Your task to perform on an android device: What's the weather going to be this weekend? Image 0: 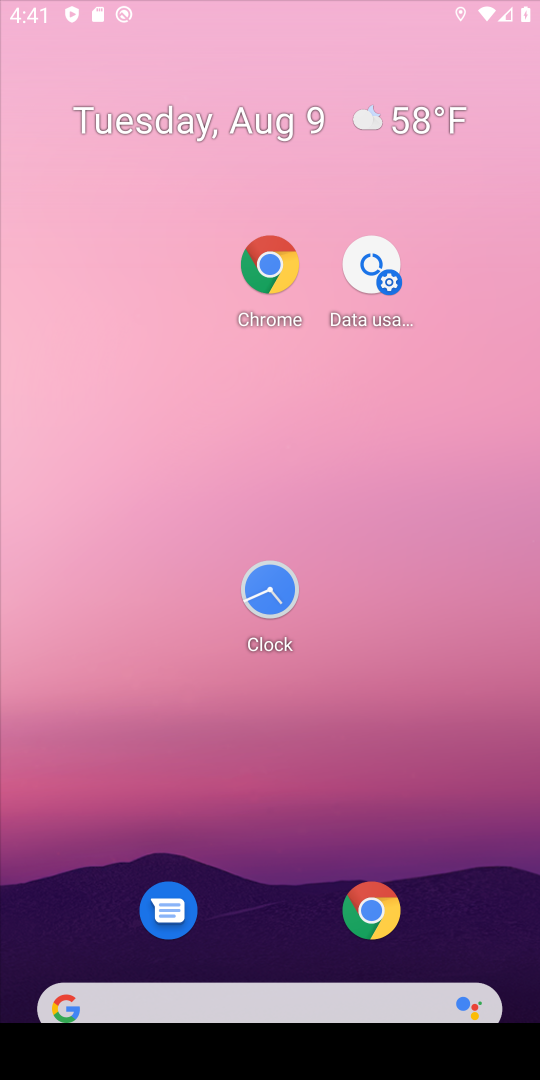
Step 0: drag from (211, 188) to (248, 93)
Your task to perform on an android device: What's the weather going to be this weekend? Image 1: 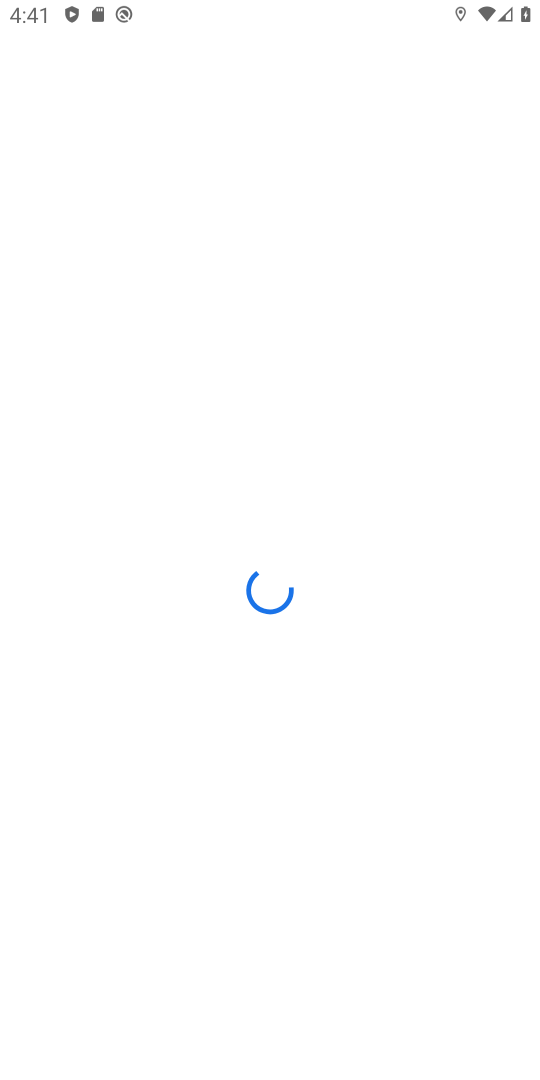
Step 1: press back button
Your task to perform on an android device: What's the weather going to be this weekend? Image 2: 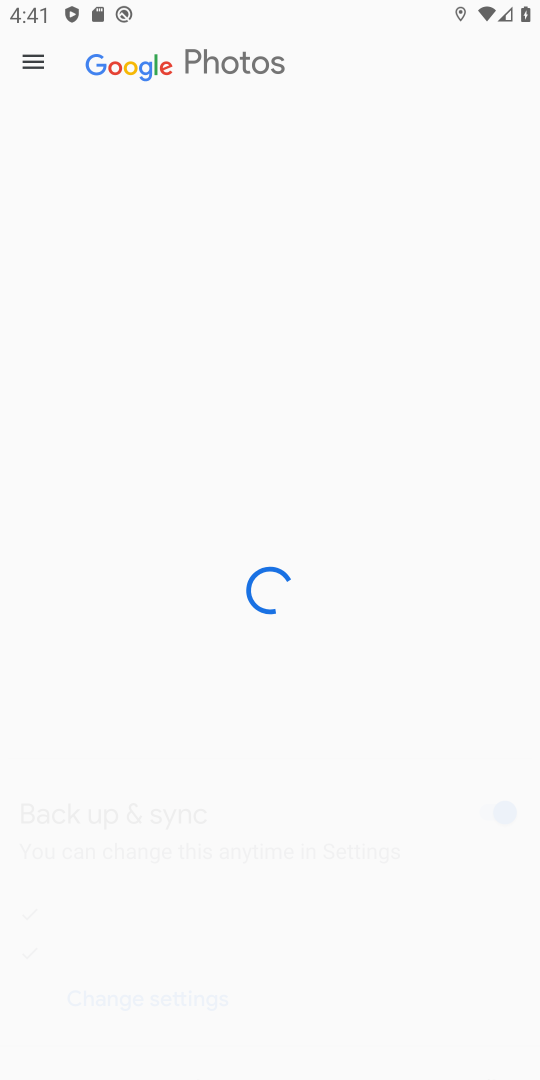
Step 2: press back button
Your task to perform on an android device: What's the weather going to be this weekend? Image 3: 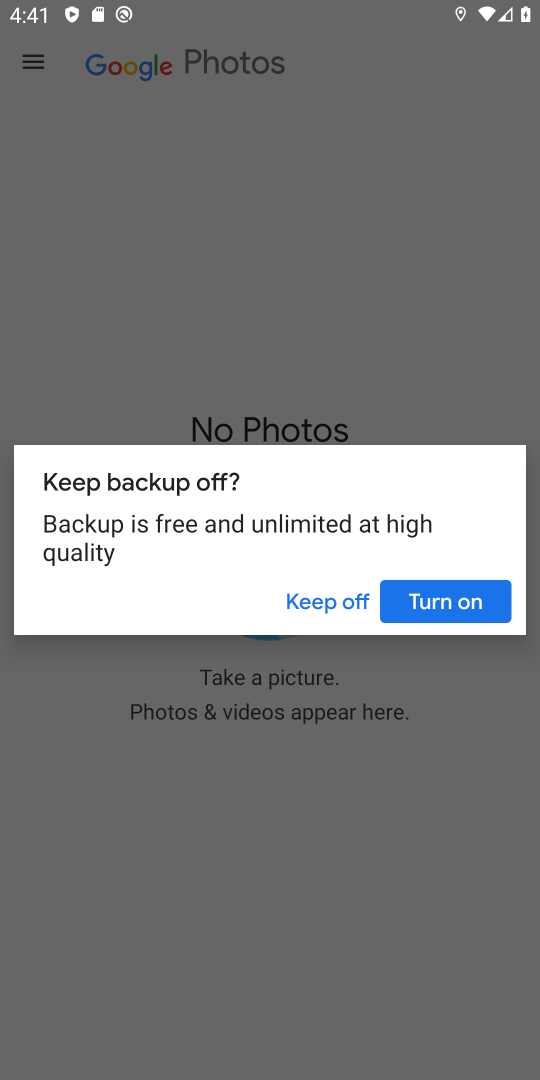
Step 3: press home button
Your task to perform on an android device: What's the weather going to be this weekend? Image 4: 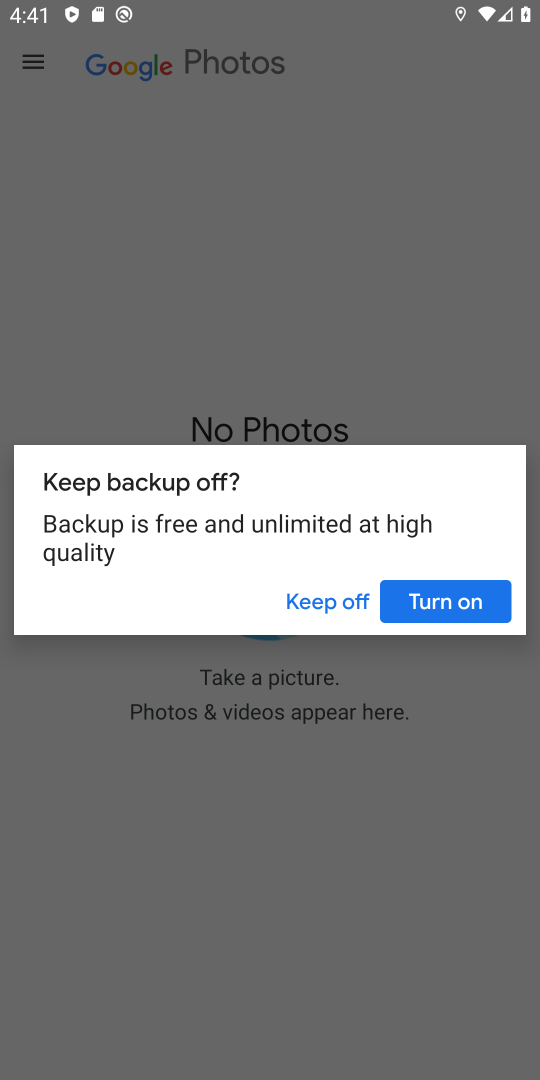
Step 4: click (282, 603)
Your task to perform on an android device: What's the weather going to be this weekend? Image 5: 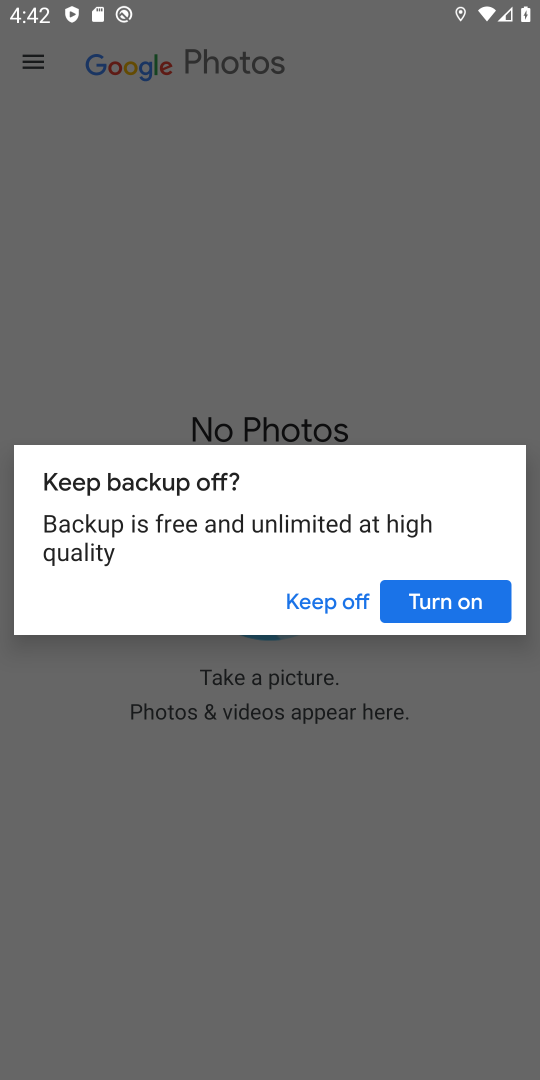
Step 5: click (296, 603)
Your task to perform on an android device: What's the weather going to be this weekend? Image 6: 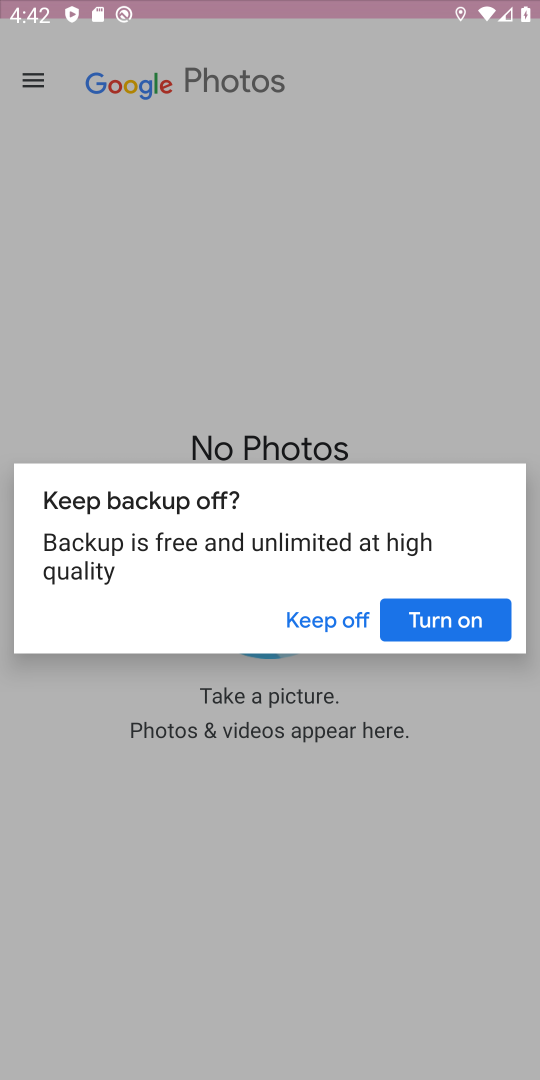
Step 6: click (302, 603)
Your task to perform on an android device: What's the weather going to be this weekend? Image 7: 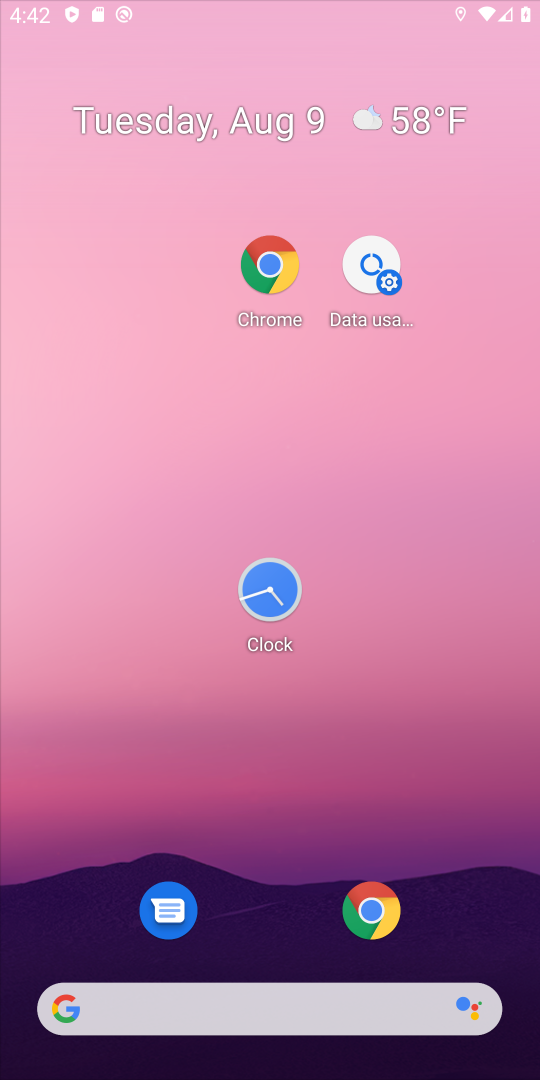
Step 7: drag from (299, 702) to (254, 259)
Your task to perform on an android device: What's the weather going to be this weekend? Image 8: 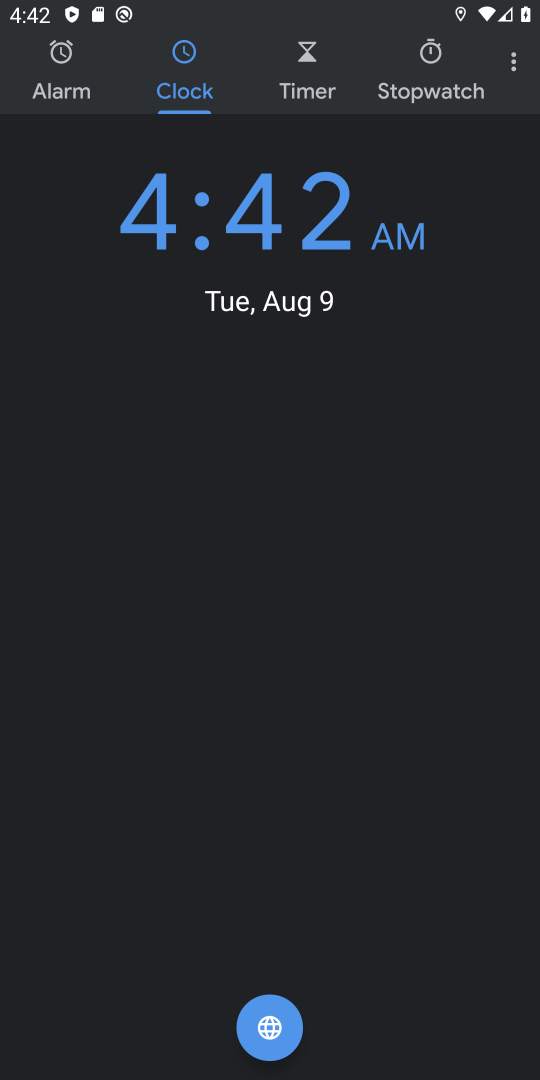
Step 8: press back button
Your task to perform on an android device: What's the weather going to be this weekend? Image 9: 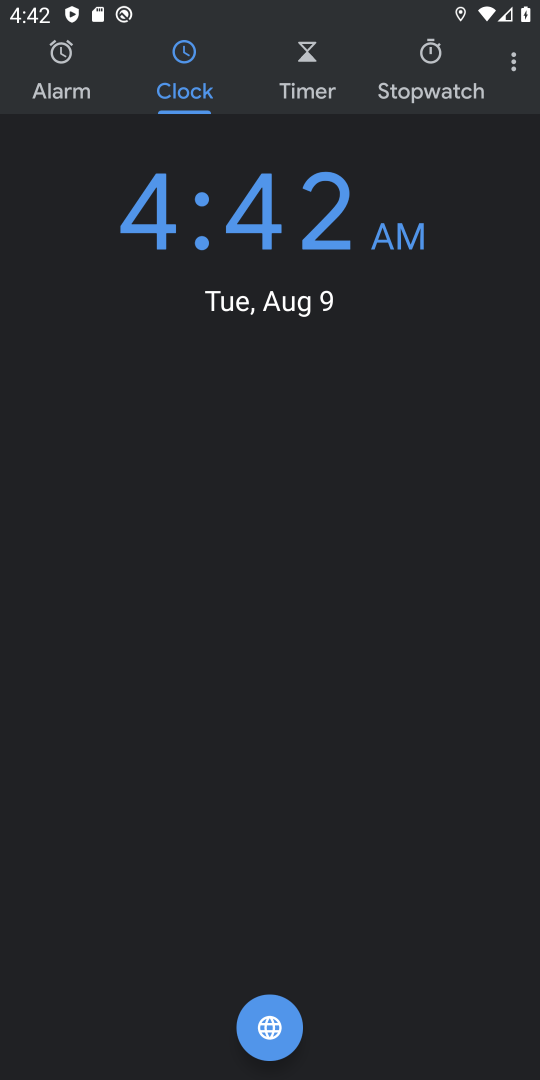
Step 9: press back button
Your task to perform on an android device: What's the weather going to be this weekend? Image 10: 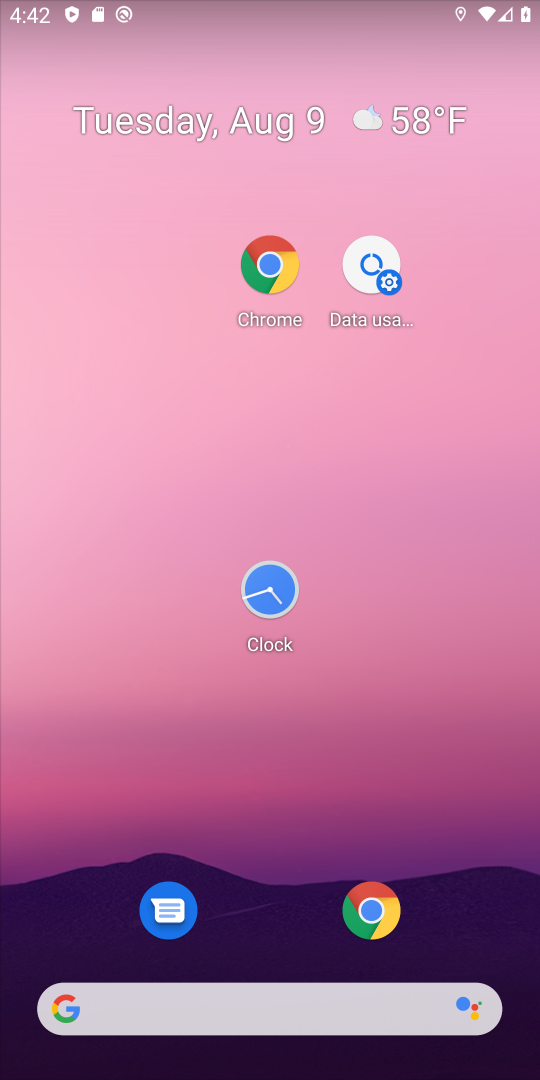
Step 10: drag from (272, 284) to (270, 104)
Your task to perform on an android device: What's the weather going to be this weekend? Image 11: 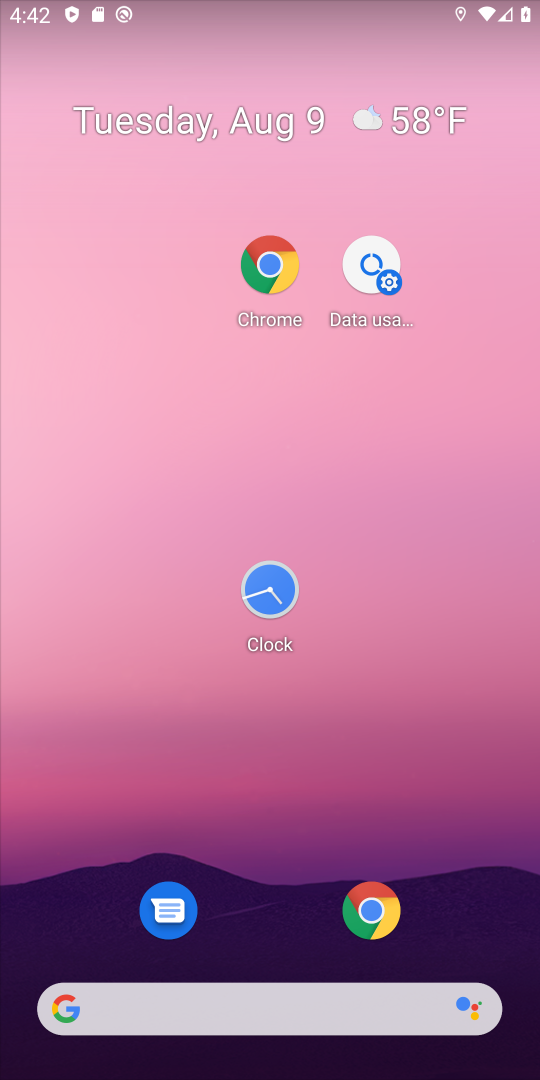
Step 11: click (279, 251)
Your task to perform on an android device: What's the weather going to be this weekend? Image 12: 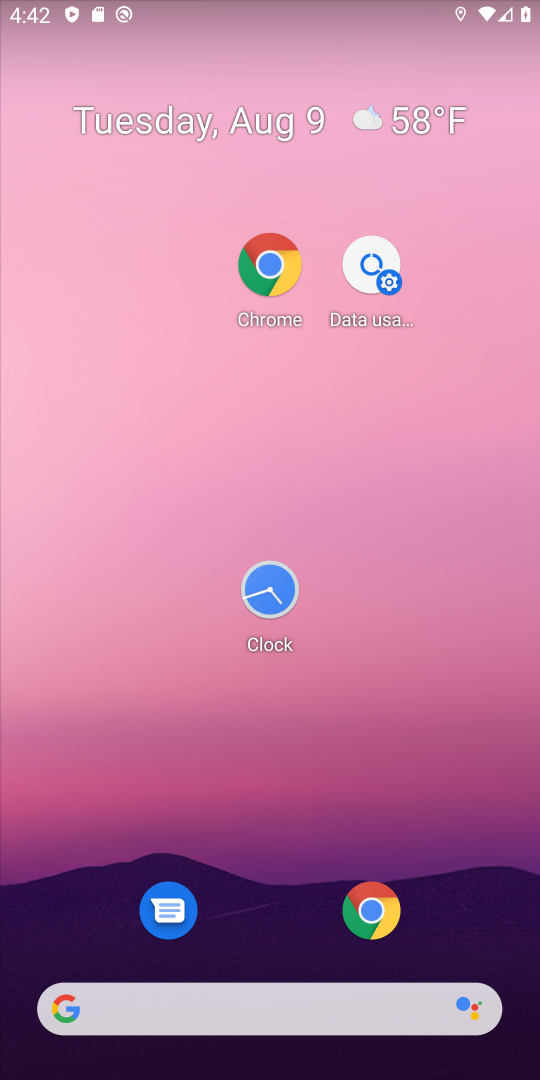
Step 12: click (278, 252)
Your task to perform on an android device: What's the weather going to be this weekend? Image 13: 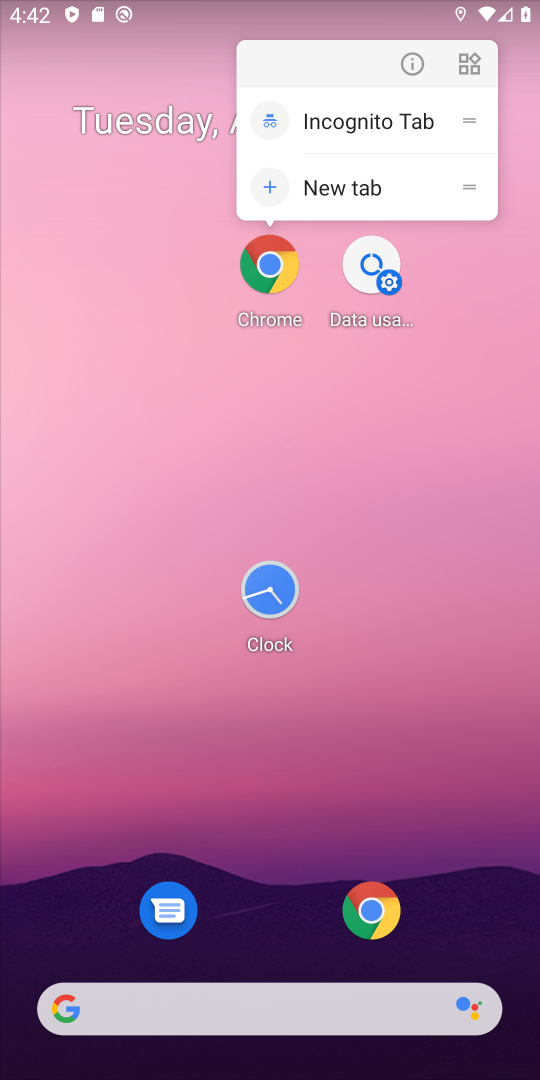
Step 13: click (279, 255)
Your task to perform on an android device: What's the weather going to be this weekend? Image 14: 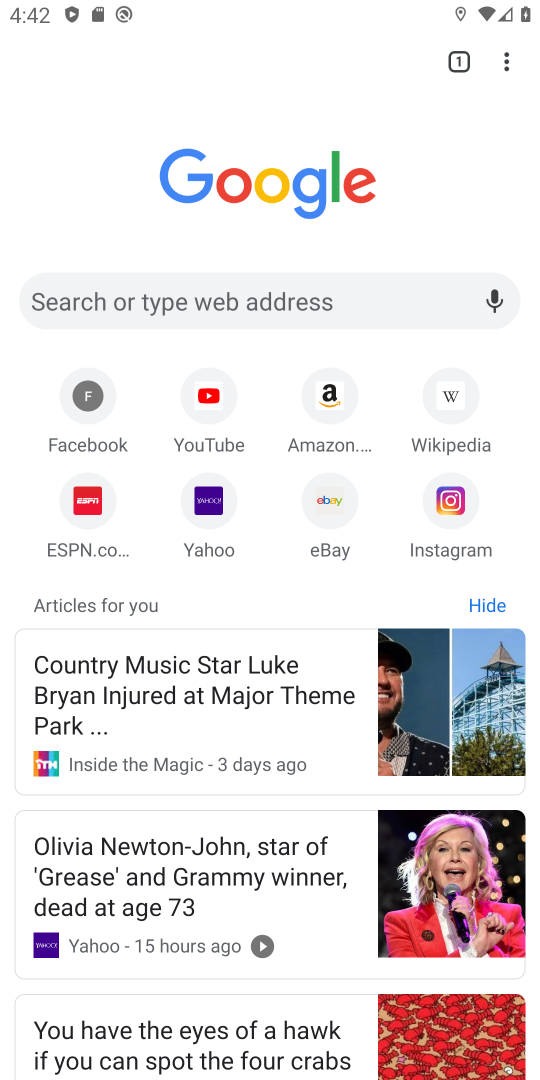
Step 14: click (106, 306)
Your task to perform on an android device: What's the weather going to be this weekend? Image 15: 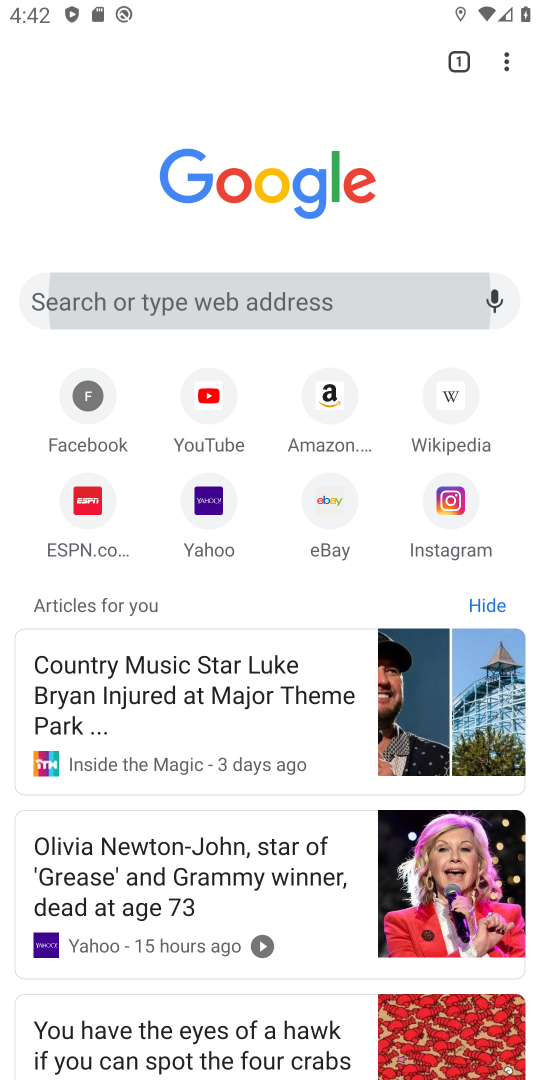
Step 15: click (108, 290)
Your task to perform on an android device: What's the weather going to be this weekend? Image 16: 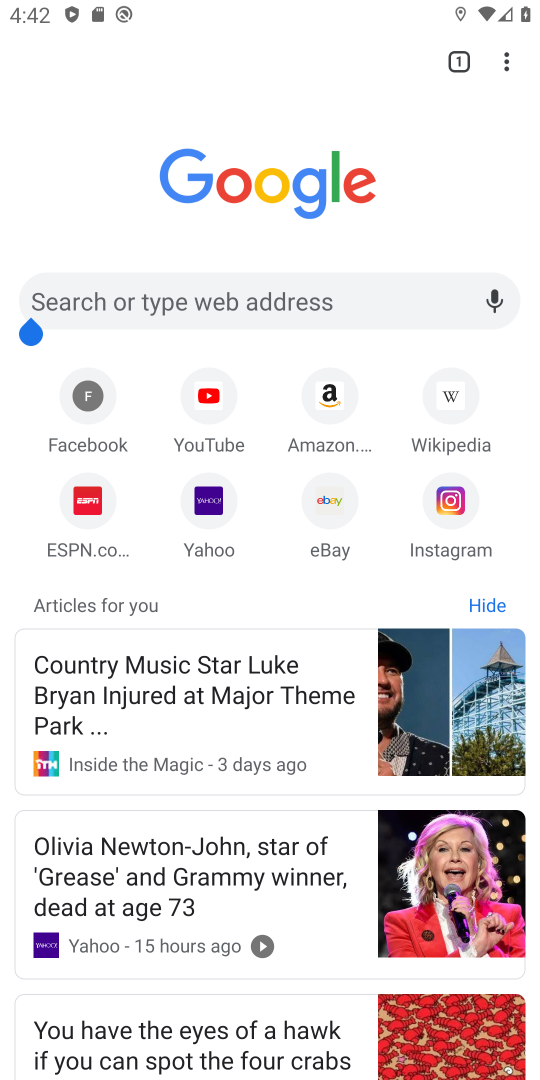
Step 16: click (113, 291)
Your task to perform on an android device: What's the weather going to be this weekend? Image 17: 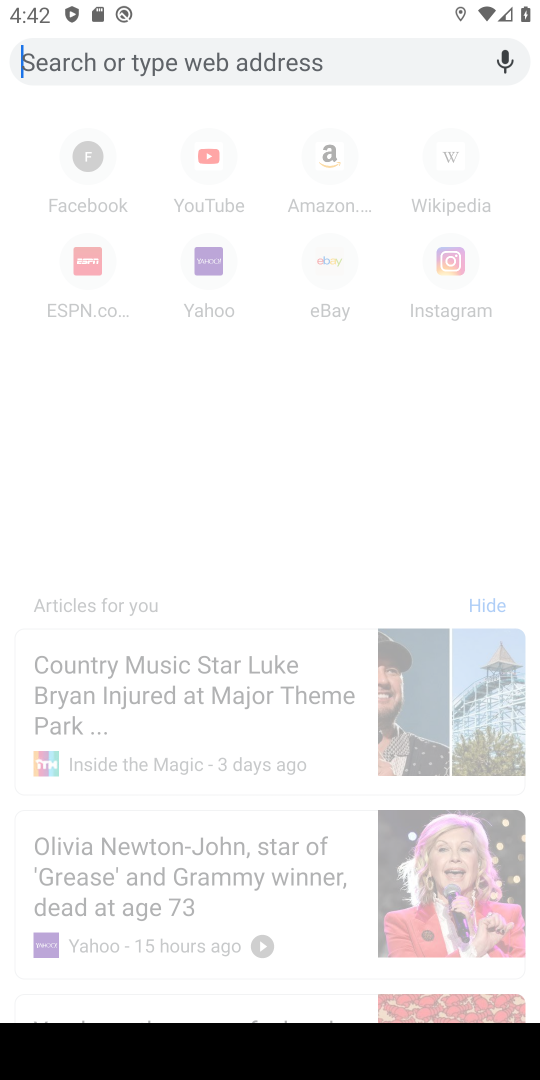
Step 17: type "what's the weather going to be this weekend"
Your task to perform on an android device: What's the weather going to be this weekend? Image 18: 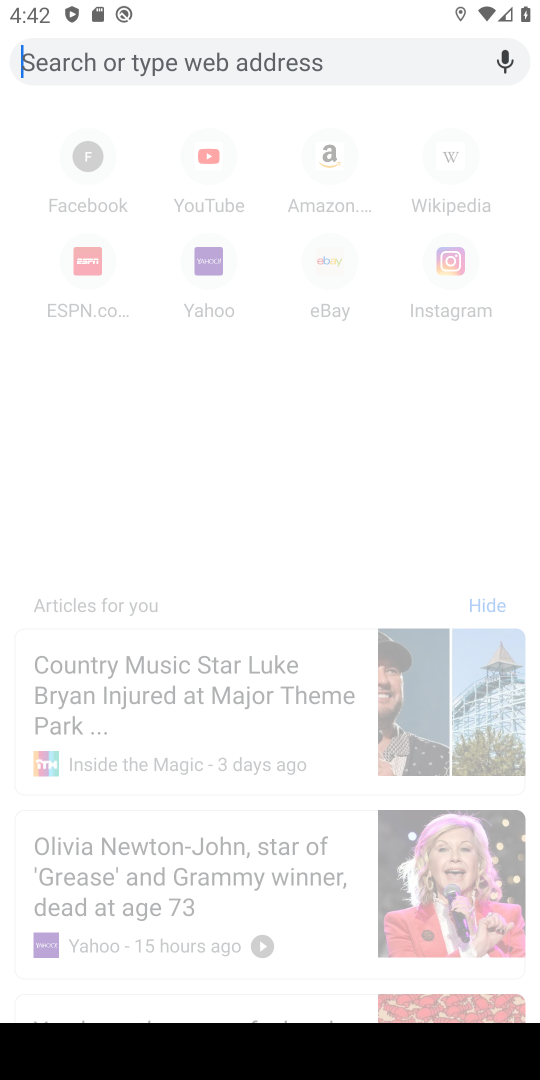
Step 18: click (147, 72)
Your task to perform on an android device: What's the weather going to be this weekend? Image 19: 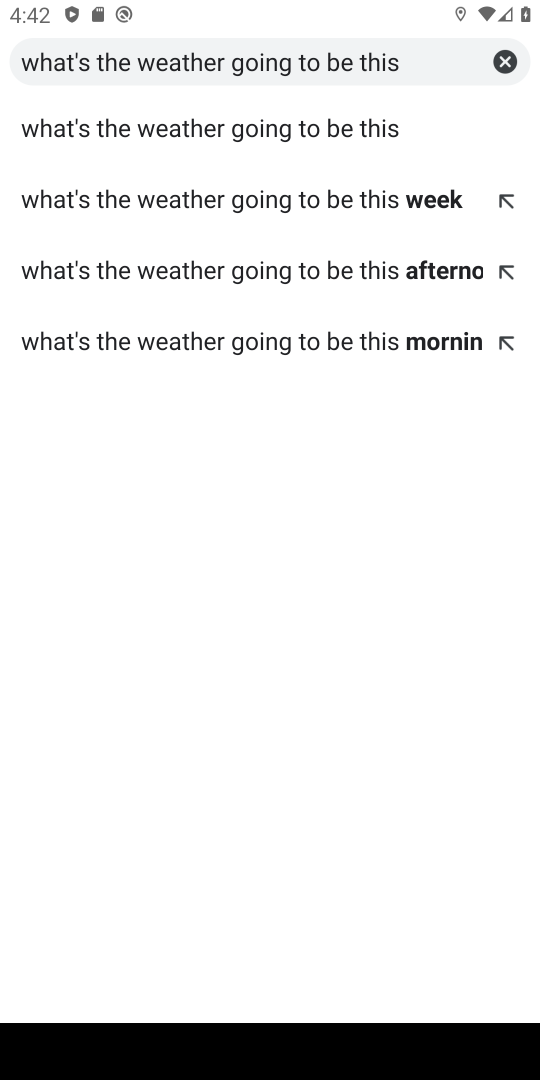
Step 19: type "whats the weather of ths weeknd"
Your task to perform on an android device: What's the weather going to be this weekend? Image 20: 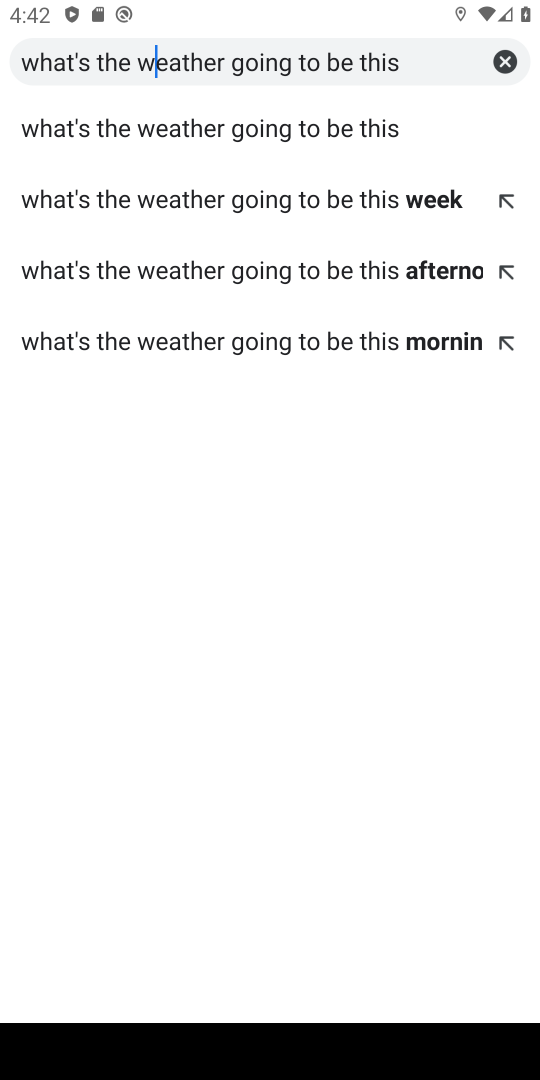
Step 20: drag from (533, 216) to (410, 190)
Your task to perform on an android device: What's the weather going to be this weekend? Image 21: 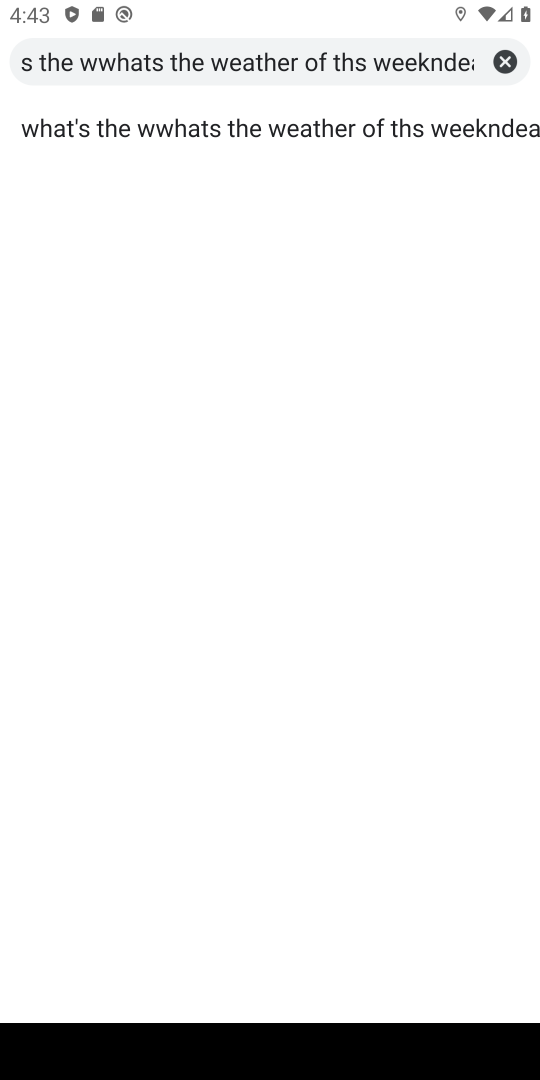
Step 21: click (303, 133)
Your task to perform on an android device: What's the weather going to be this weekend? Image 22: 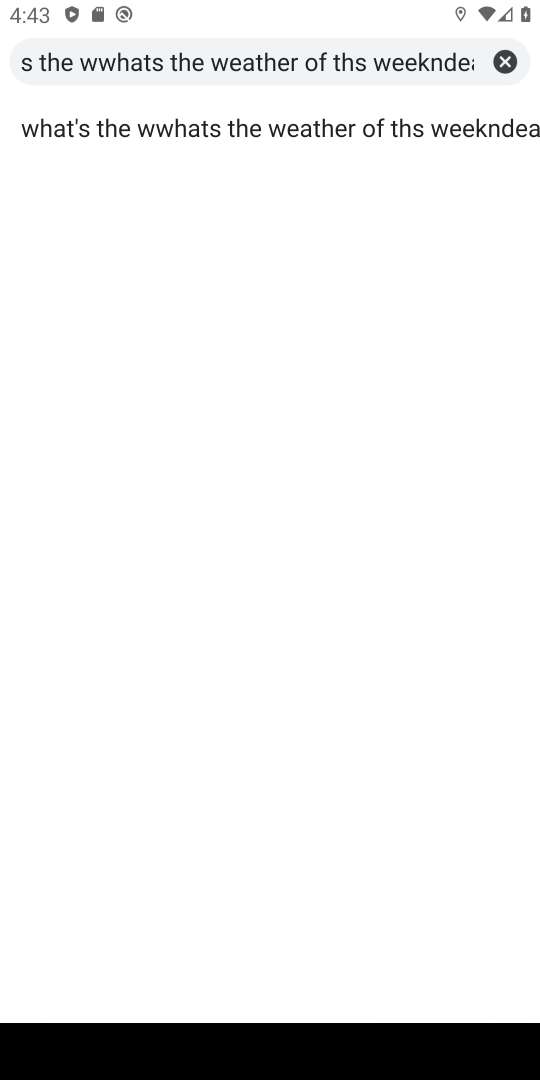
Step 22: click (293, 125)
Your task to perform on an android device: What's the weather going to be this weekend? Image 23: 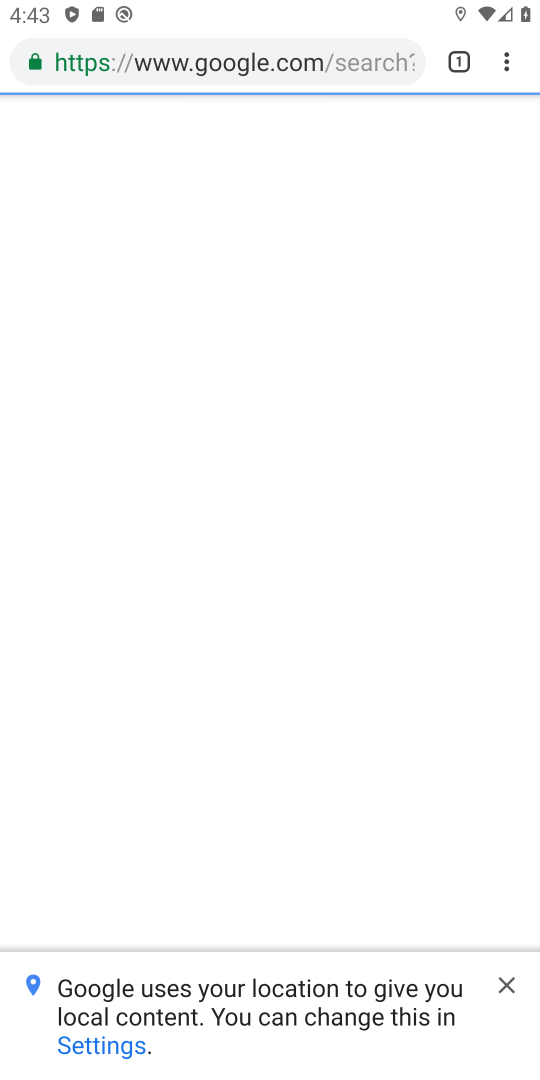
Step 23: task complete